Your task to perform on an android device: turn on data saver in the chrome app Image 0: 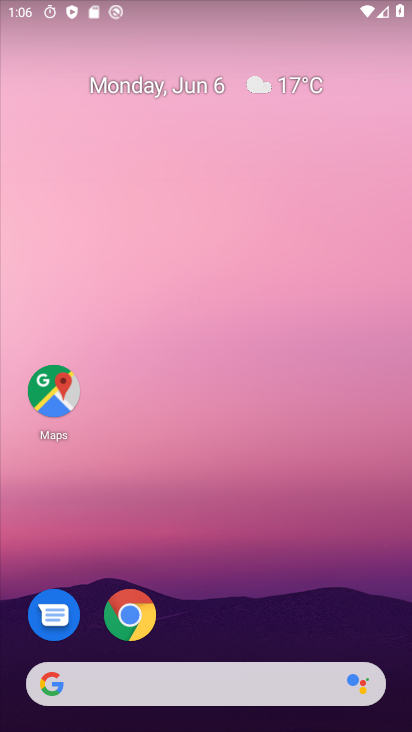
Step 0: press home button
Your task to perform on an android device: turn on data saver in the chrome app Image 1: 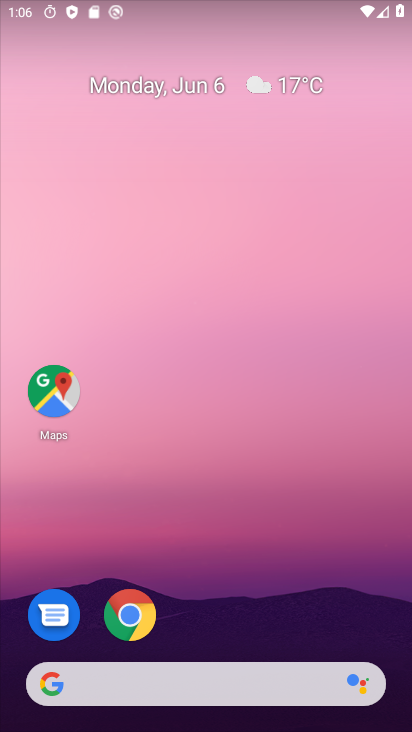
Step 1: drag from (180, 625) to (223, 227)
Your task to perform on an android device: turn on data saver in the chrome app Image 2: 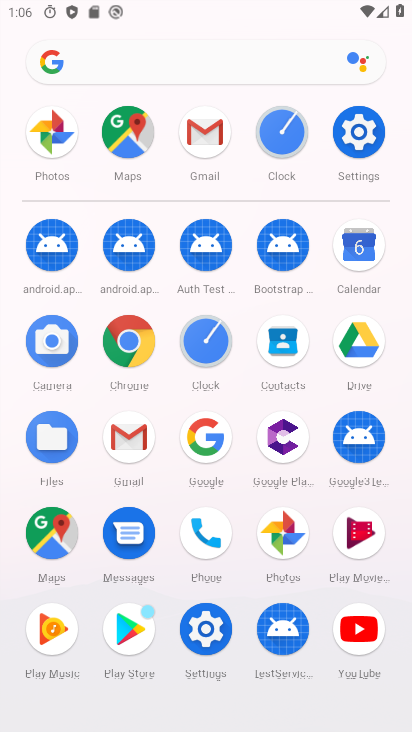
Step 2: click (127, 341)
Your task to perform on an android device: turn on data saver in the chrome app Image 3: 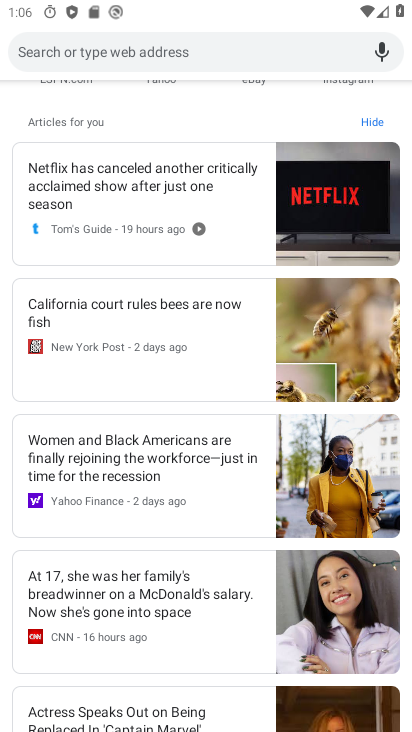
Step 3: drag from (191, 116) to (198, 555)
Your task to perform on an android device: turn on data saver in the chrome app Image 4: 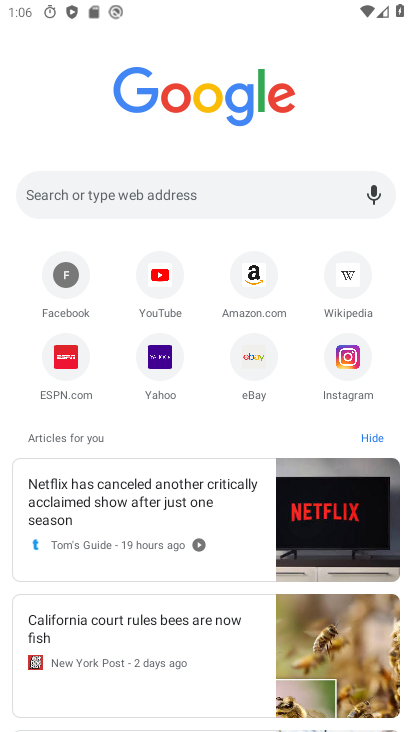
Step 4: drag from (197, 142) to (221, 523)
Your task to perform on an android device: turn on data saver in the chrome app Image 5: 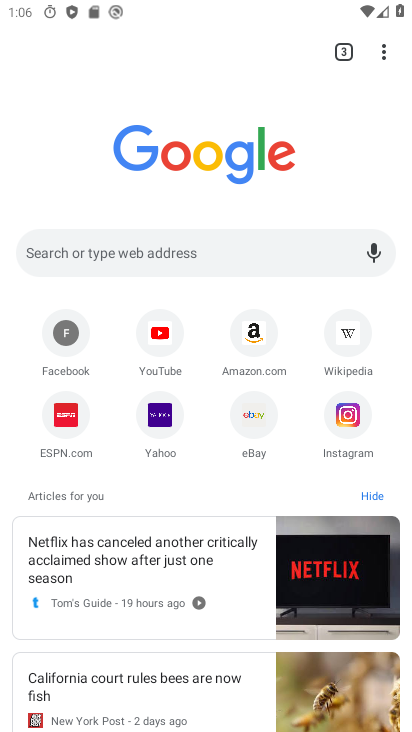
Step 5: drag from (386, 51) to (247, 447)
Your task to perform on an android device: turn on data saver in the chrome app Image 6: 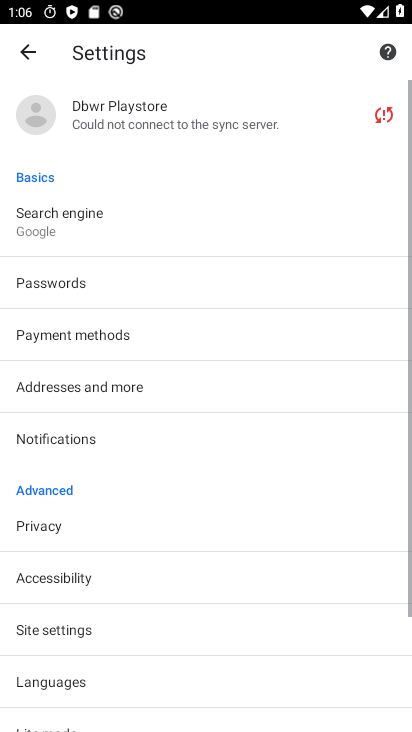
Step 6: drag from (187, 608) to (261, 169)
Your task to perform on an android device: turn on data saver in the chrome app Image 7: 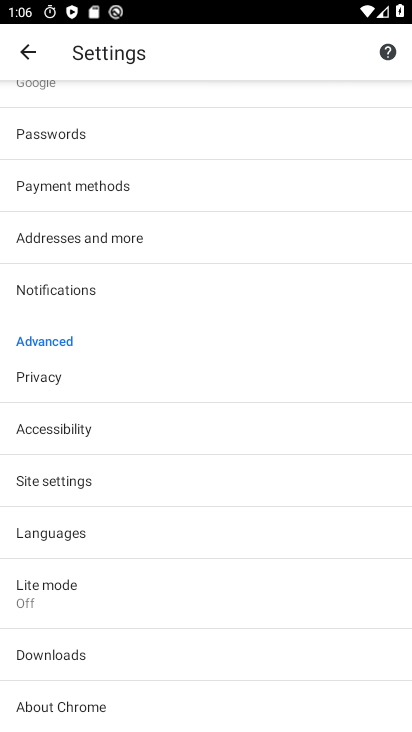
Step 7: click (116, 590)
Your task to perform on an android device: turn on data saver in the chrome app Image 8: 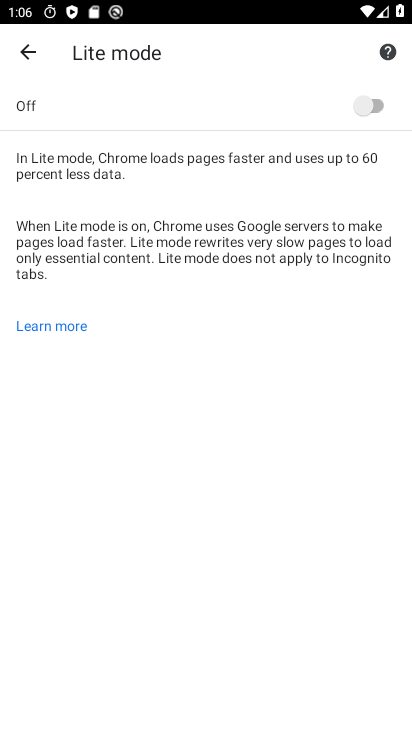
Step 8: click (341, 106)
Your task to perform on an android device: turn on data saver in the chrome app Image 9: 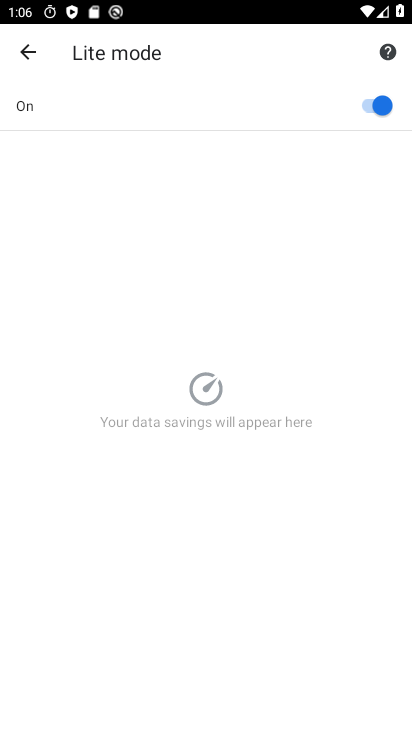
Step 9: task complete